Your task to perform on an android device: turn off picture-in-picture Image 0: 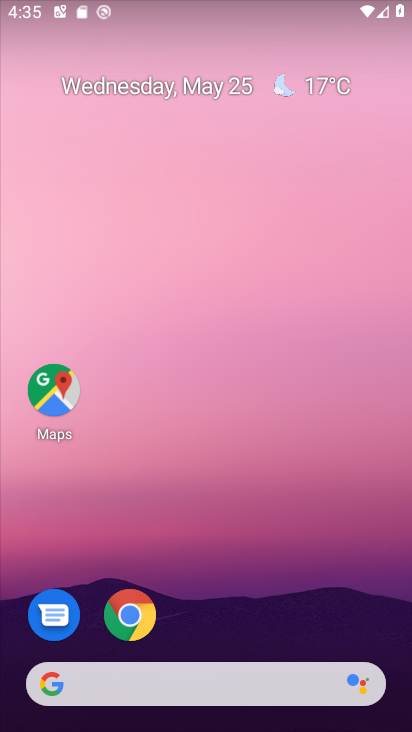
Step 0: drag from (219, 263) to (164, 22)
Your task to perform on an android device: turn off picture-in-picture Image 1: 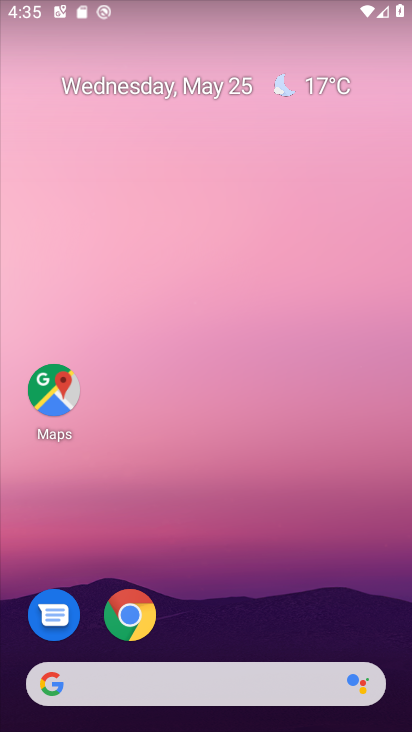
Step 1: drag from (272, 218) to (150, 34)
Your task to perform on an android device: turn off picture-in-picture Image 2: 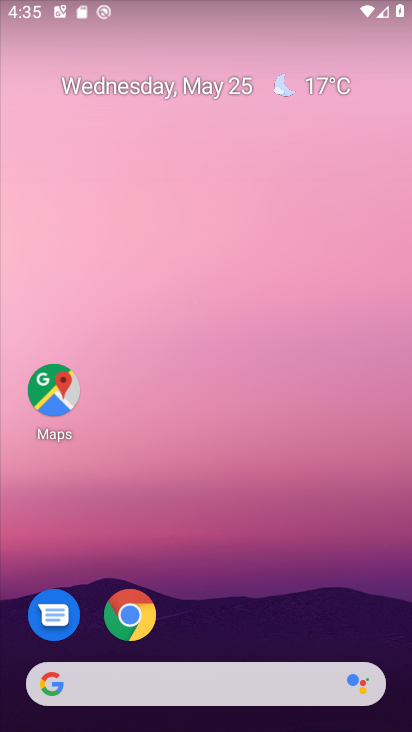
Step 2: drag from (311, 561) to (86, 9)
Your task to perform on an android device: turn off picture-in-picture Image 3: 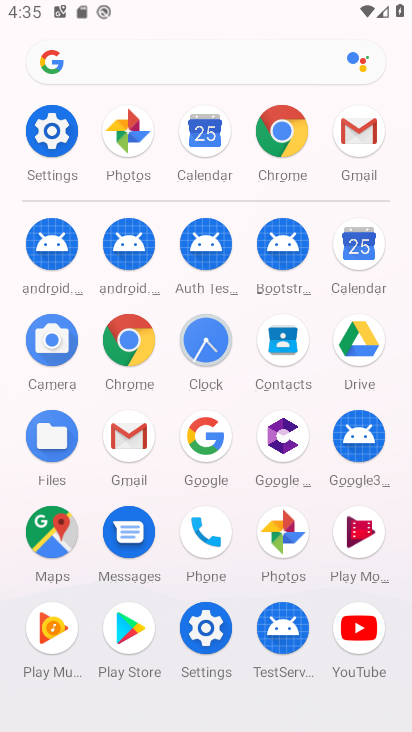
Step 3: click (47, 126)
Your task to perform on an android device: turn off picture-in-picture Image 4: 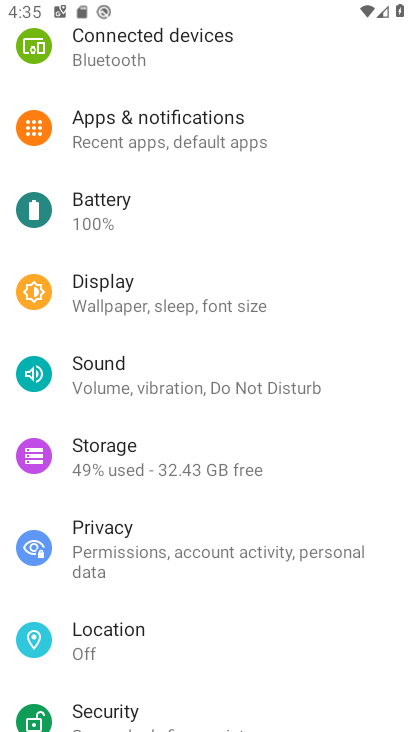
Step 4: click (229, 132)
Your task to perform on an android device: turn off picture-in-picture Image 5: 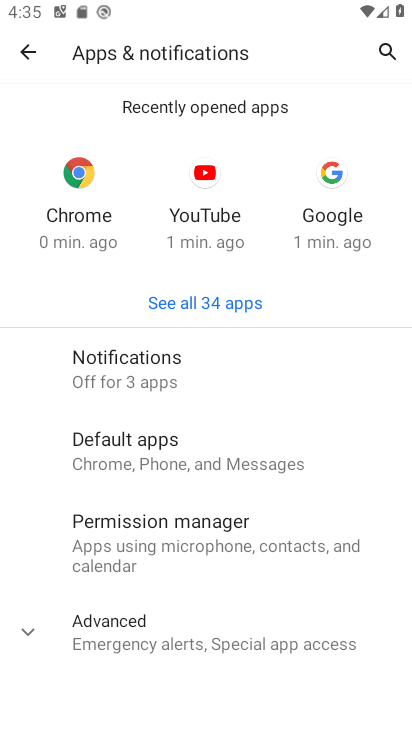
Step 5: click (255, 632)
Your task to perform on an android device: turn off picture-in-picture Image 6: 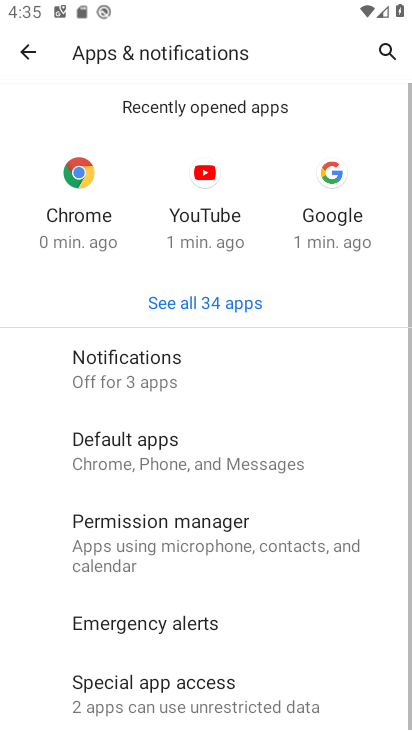
Step 6: drag from (262, 637) to (311, 169)
Your task to perform on an android device: turn off picture-in-picture Image 7: 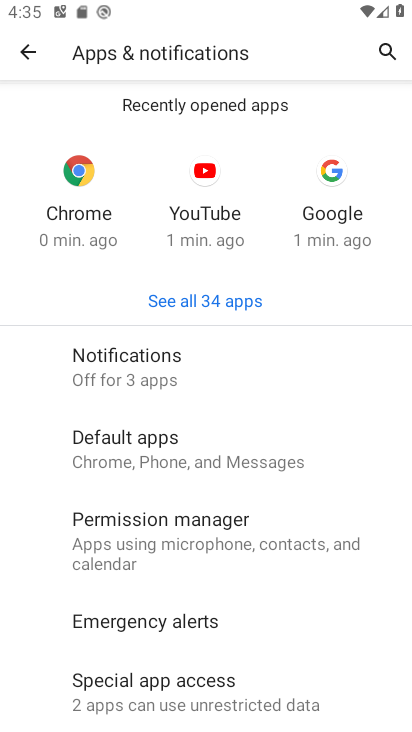
Step 7: click (223, 704)
Your task to perform on an android device: turn off picture-in-picture Image 8: 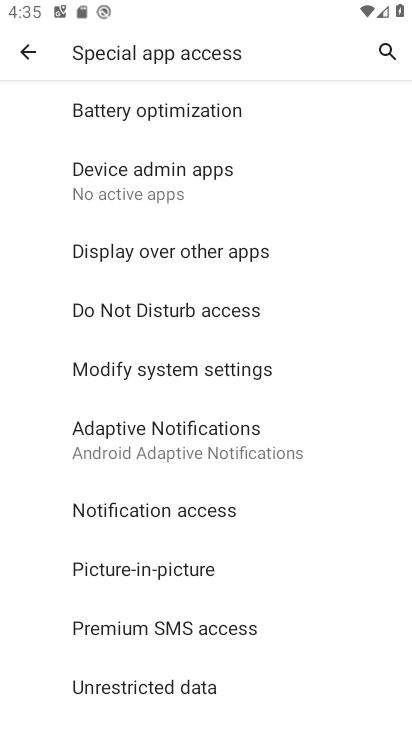
Step 8: click (204, 566)
Your task to perform on an android device: turn off picture-in-picture Image 9: 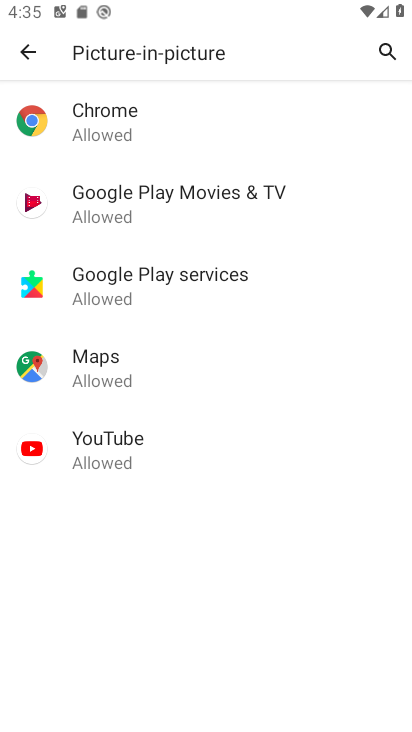
Step 9: click (177, 143)
Your task to perform on an android device: turn off picture-in-picture Image 10: 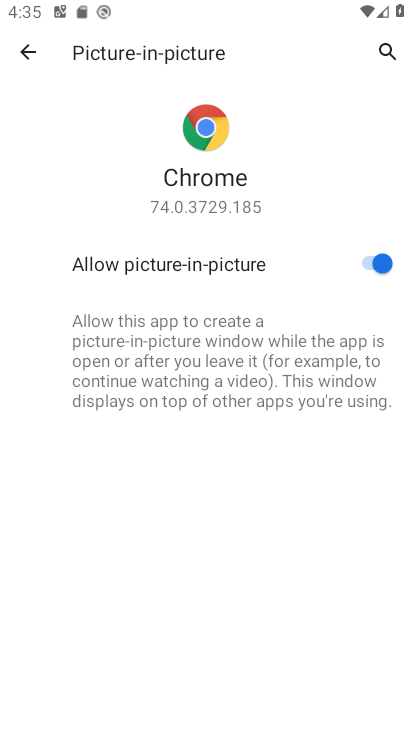
Step 10: click (376, 255)
Your task to perform on an android device: turn off picture-in-picture Image 11: 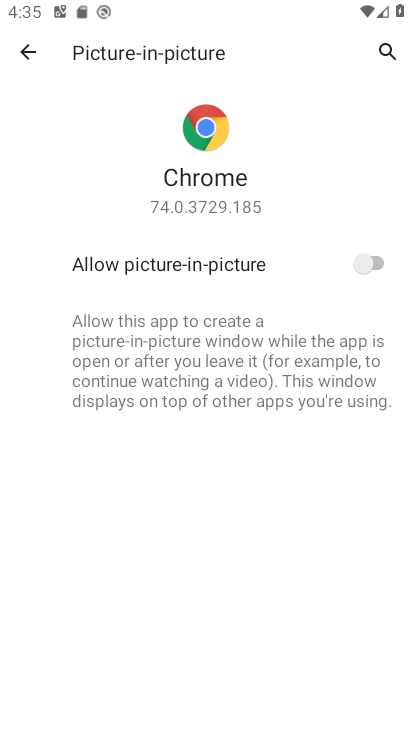
Step 11: task complete